Your task to perform on an android device: toggle location history Image 0: 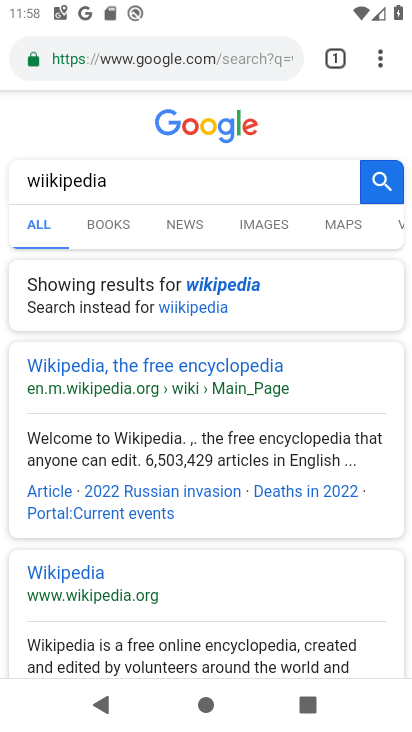
Step 0: press home button
Your task to perform on an android device: toggle location history Image 1: 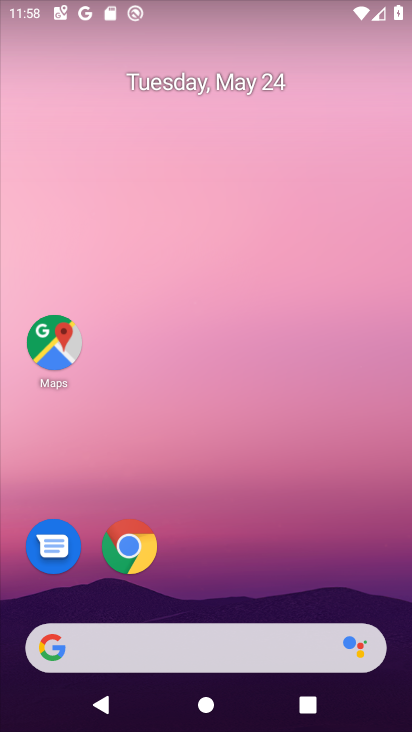
Step 1: drag from (212, 520) to (262, 0)
Your task to perform on an android device: toggle location history Image 2: 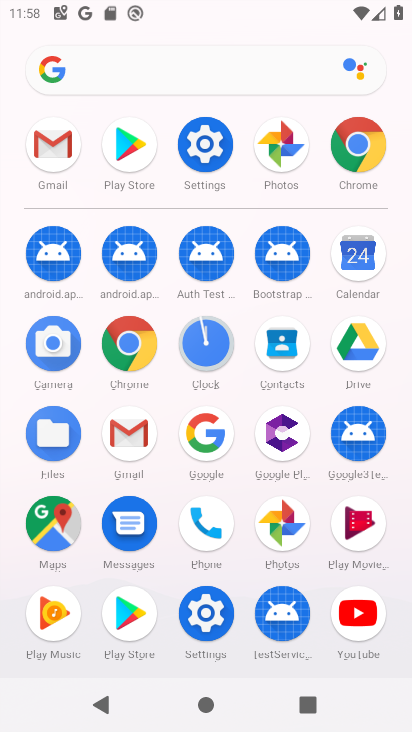
Step 2: click (210, 156)
Your task to perform on an android device: toggle location history Image 3: 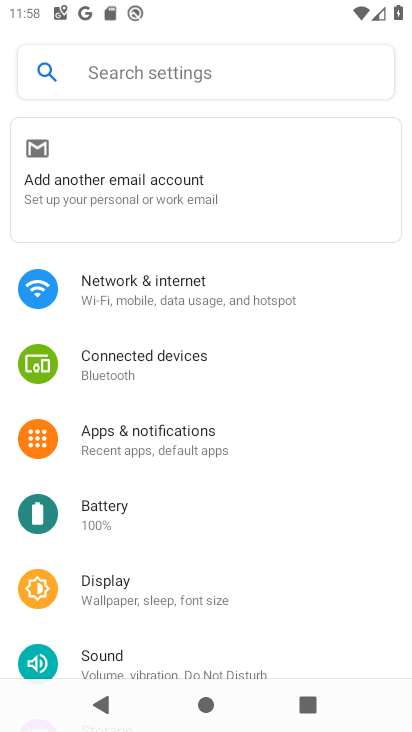
Step 3: drag from (179, 487) to (207, 219)
Your task to perform on an android device: toggle location history Image 4: 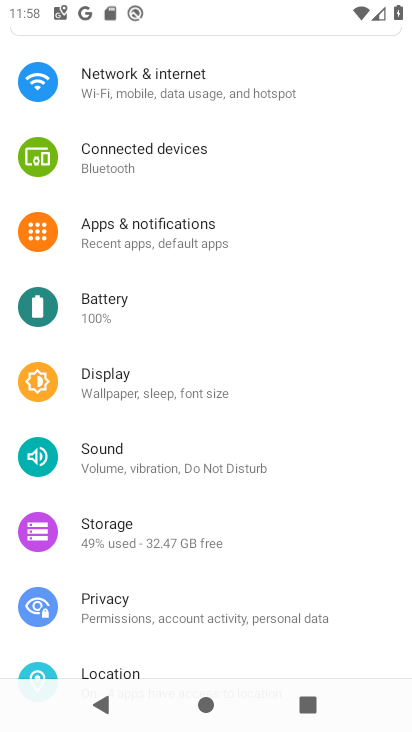
Step 4: drag from (125, 646) to (154, 523)
Your task to perform on an android device: toggle location history Image 5: 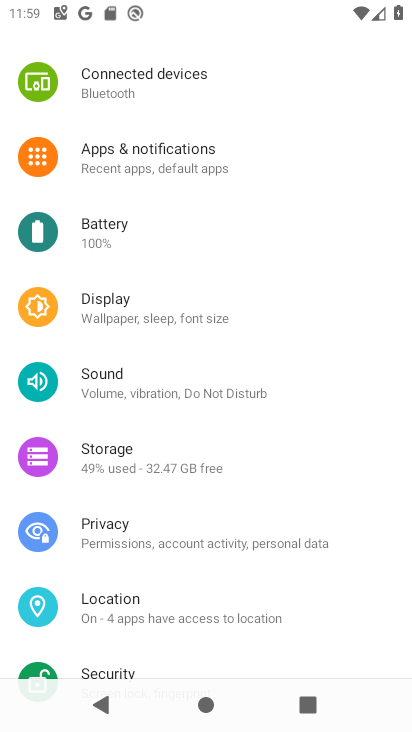
Step 5: click (116, 606)
Your task to perform on an android device: toggle location history Image 6: 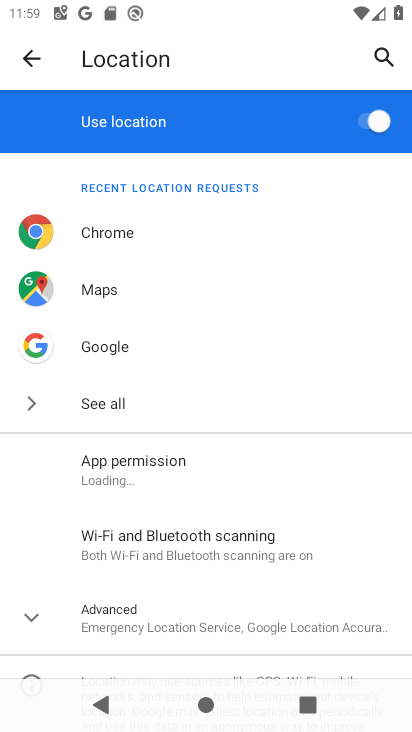
Step 6: click (171, 625)
Your task to perform on an android device: toggle location history Image 7: 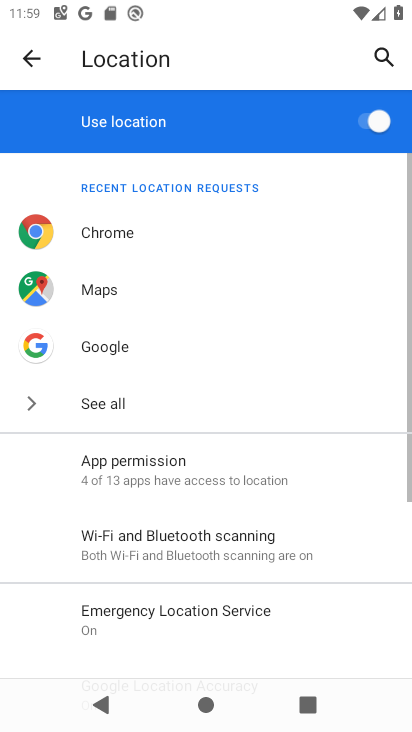
Step 7: drag from (172, 613) to (200, 231)
Your task to perform on an android device: toggle location history Image 8: 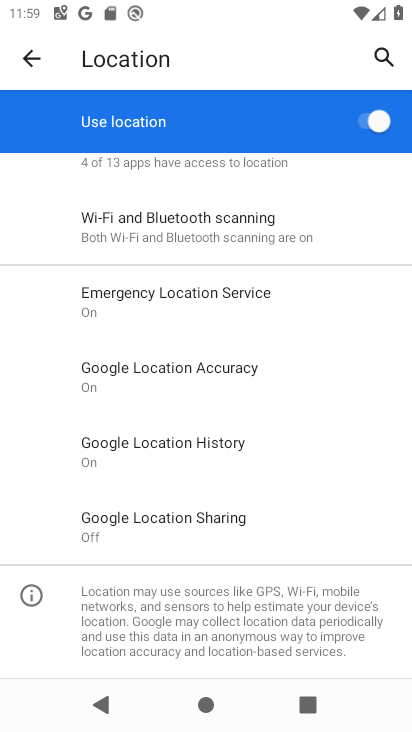
Step 8: click (185, 456)
Your task to perform on an android device: toggle location history Image 9: 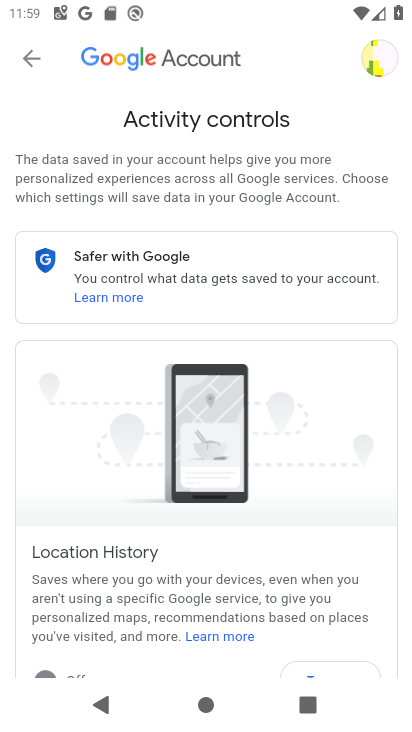
Step 9: drag from (164, 571) to (188, 239)
Your task to perform on an android device: toggle location history Image 10: 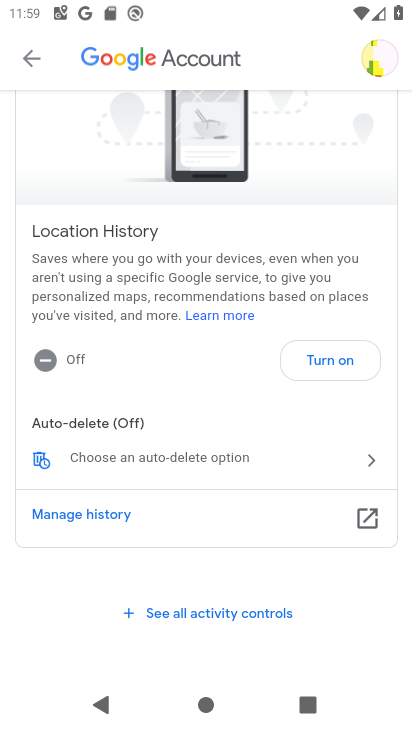
Step 10: click (325, 356)
Your task to perform on an android device: toggle location history Image 11: 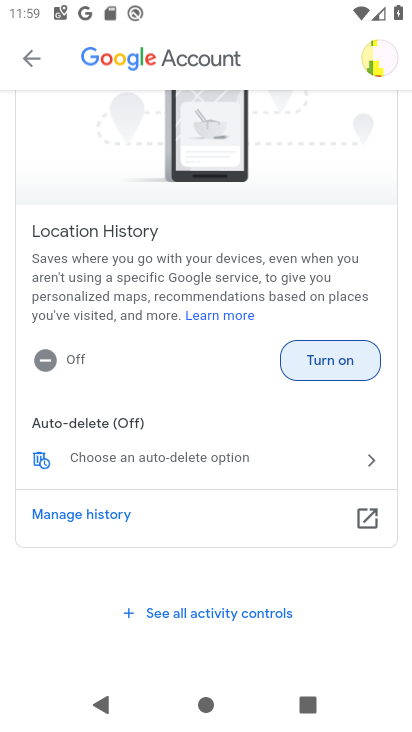
Step 11: click (332, 366)
Your task to perform on an android device: toggle location history Image 12: 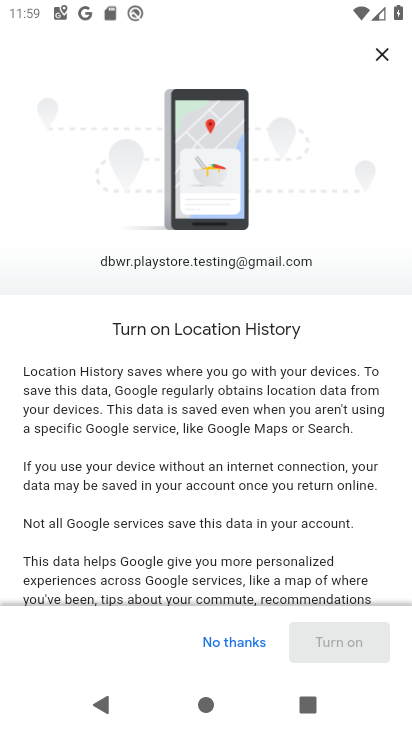
Step 12: drag from (267, 551) to (322, 138)
Your task to perform on an android device: toggle location history Image 13: 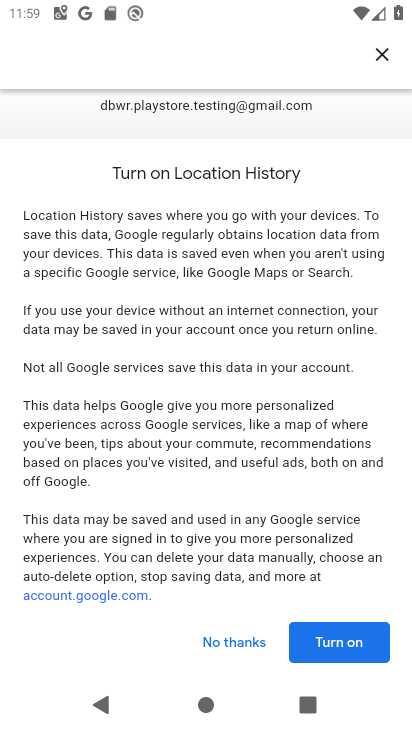
Step 13: click (332, 650)
Your task to perform on an android device: toggle location history Image 14: 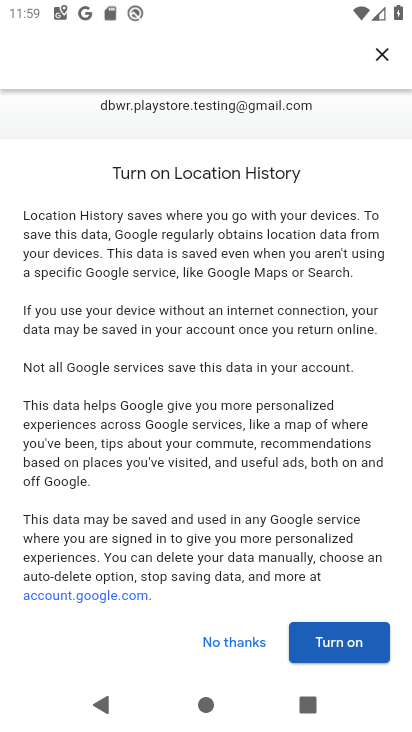
Step 14: click (362, 634)
Your task to perform on an android device: toggle location history Image 15: 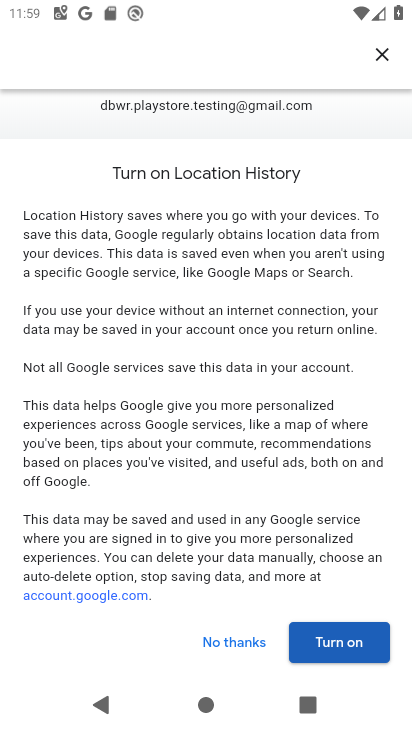
Step 15: click (356, 643)
Your task to perform on an android device: toggle location history Image 16: 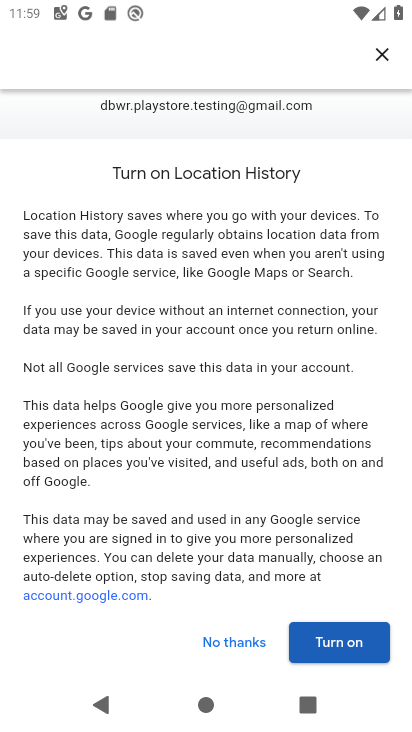
Step 16: click (354, 642)
Your task to perform on an android device: toggle location history Image 17: 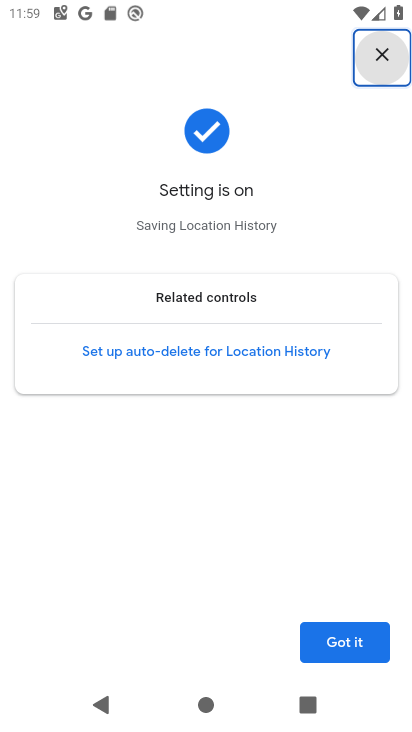
Step 17: click (355, 645)
Your task to perform on an android device: toggle location history Image 18: 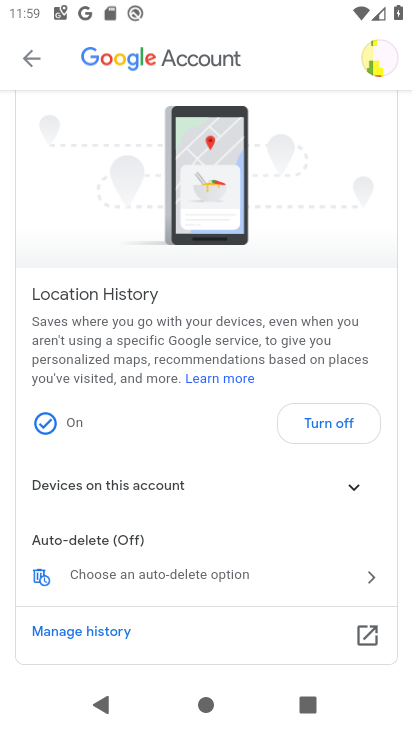
Step 18: task complete